Your task to perform on an android device: Go to Google Image 0: 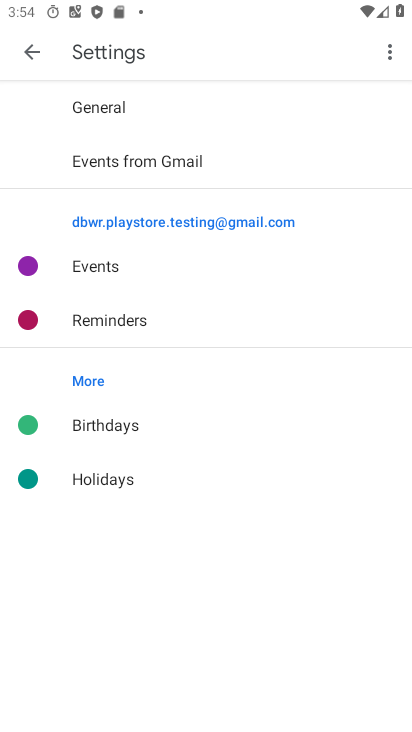
Step 0: press home button
Your task to perform on an android device: Go to Google Image 1: 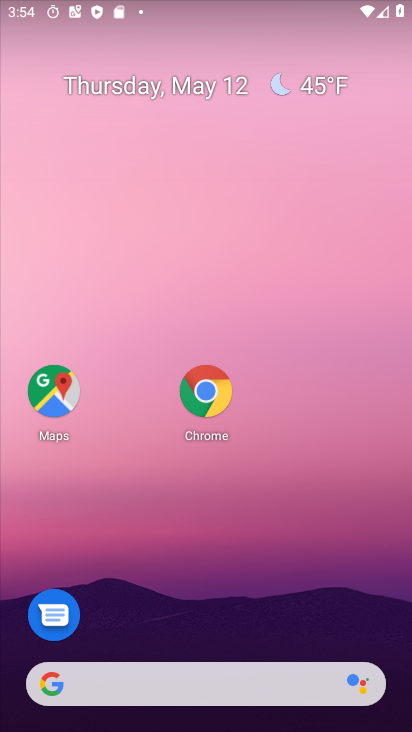
Step 1: drag from (240, 612) to (252, 47)
Your task to perform on an android device: Go to Google Image 2: 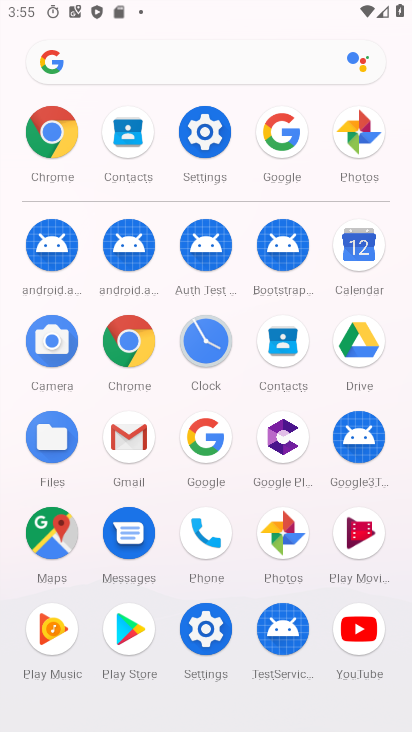
Step 2: click (212, 444)
Your task to perform on an android device: Go to Google Image 3: 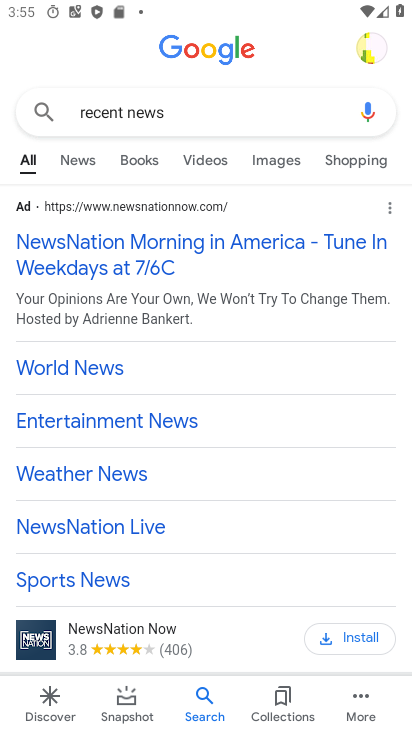
Step 3: task complete